Your task to perform on an android device: open chrome privacy settings Image 0: 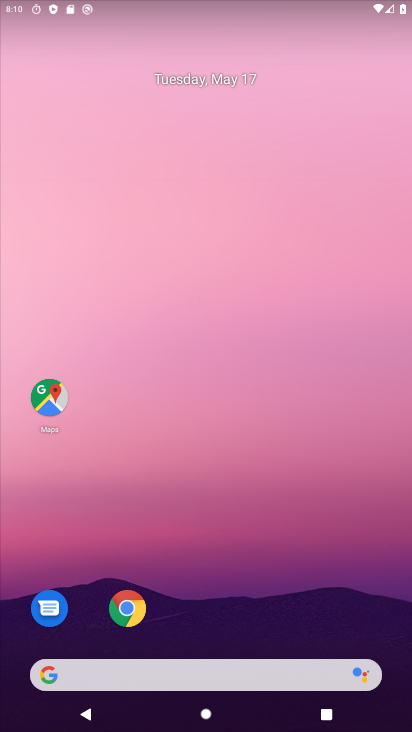
Step 0: drag from (285, 578) to (222, 169)
Your task to perform on an android device: open chrome privacy settings Image 1: 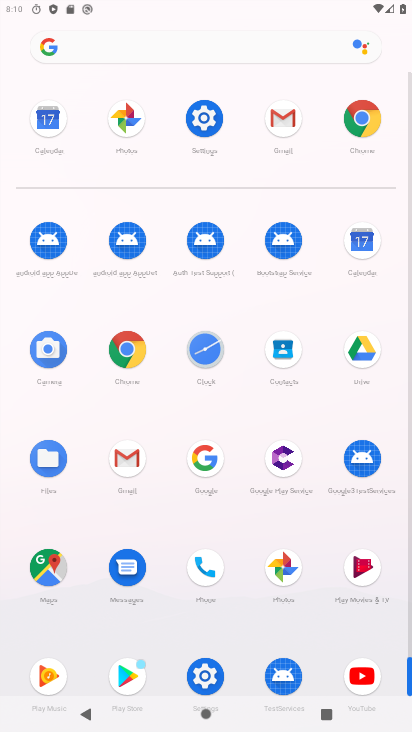
Step 1: click (127, 348)
Your task to perform on an android device: open chrome privacy settings Image 2: 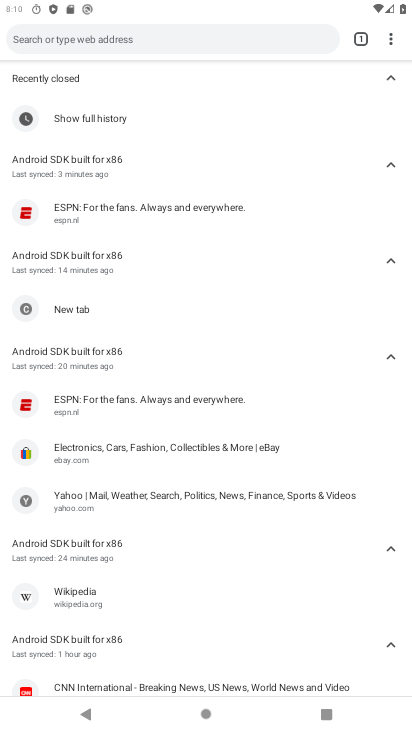
Step 2: drag from (389, 41) to (251, 323)
Your task to perform on an android device: open chrome privacy settings Image 3: 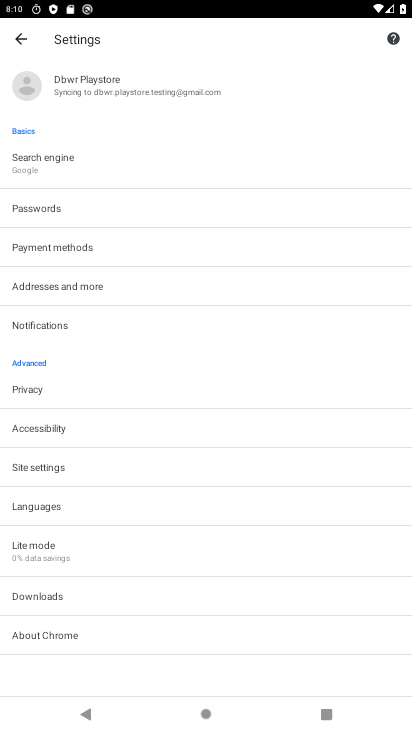
Step 3: drag from (178, 636) to (201, 196)
Your task to perform on an android device: open chrome privacy settings Image 4: 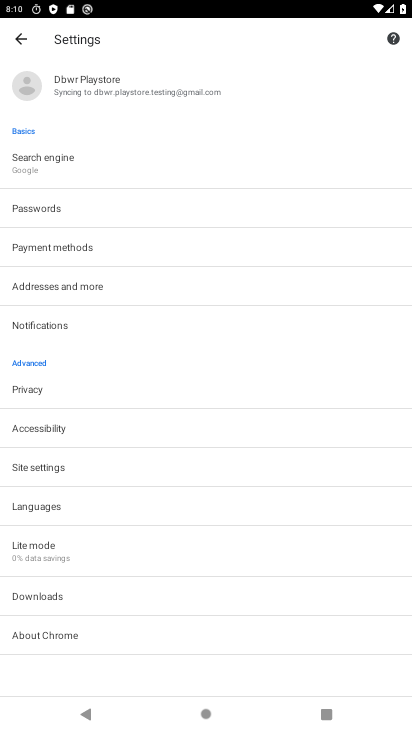
Step 4: click (90, 385)
Your task to perform on an android device: open chrome privacy settings Image 5: 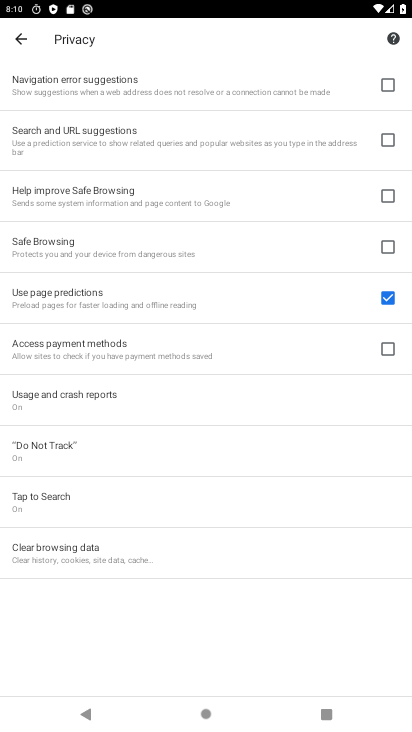
Step 5: task complete